Your task to perform on an android device: Go to eBay Image 0: 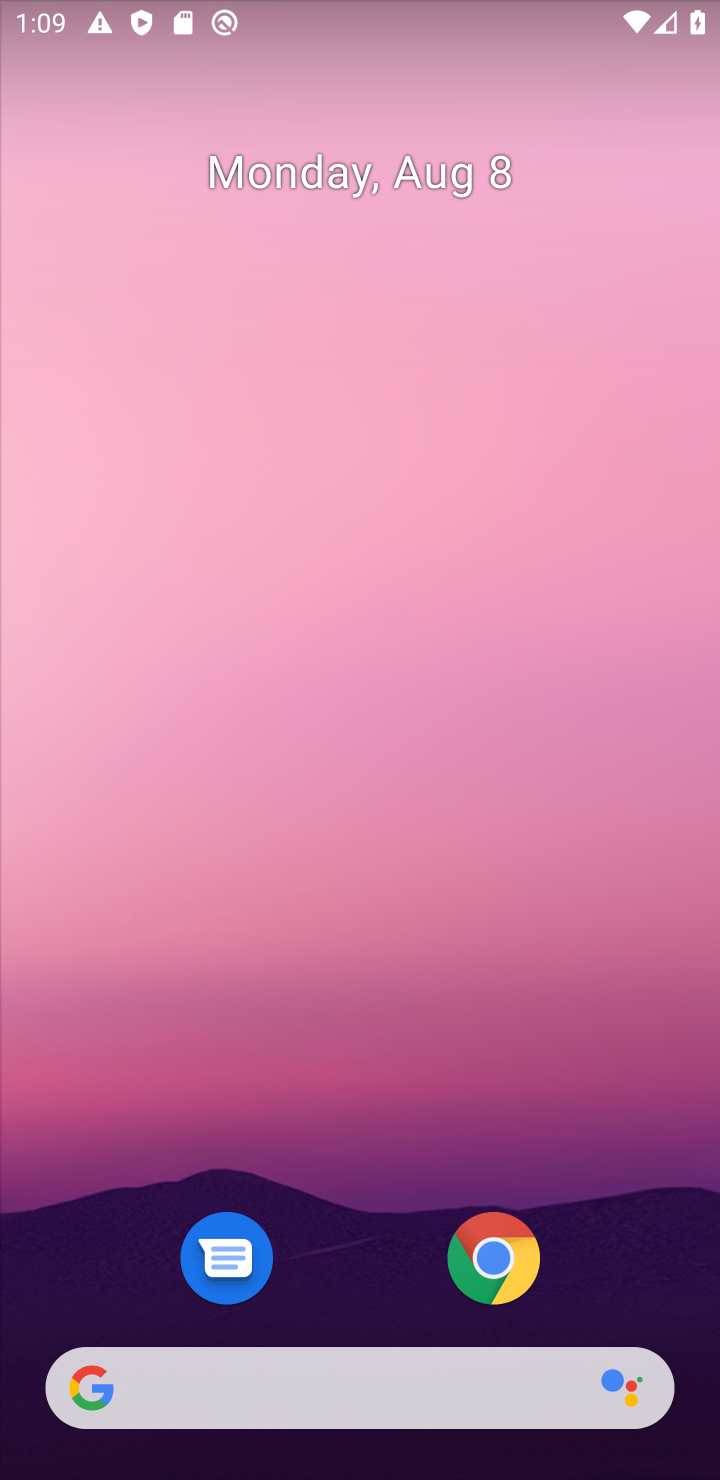
Step 0: drag from (407, 1149) to (404, 432)
Your task to perform on an android device: Go to eBay Image 1: 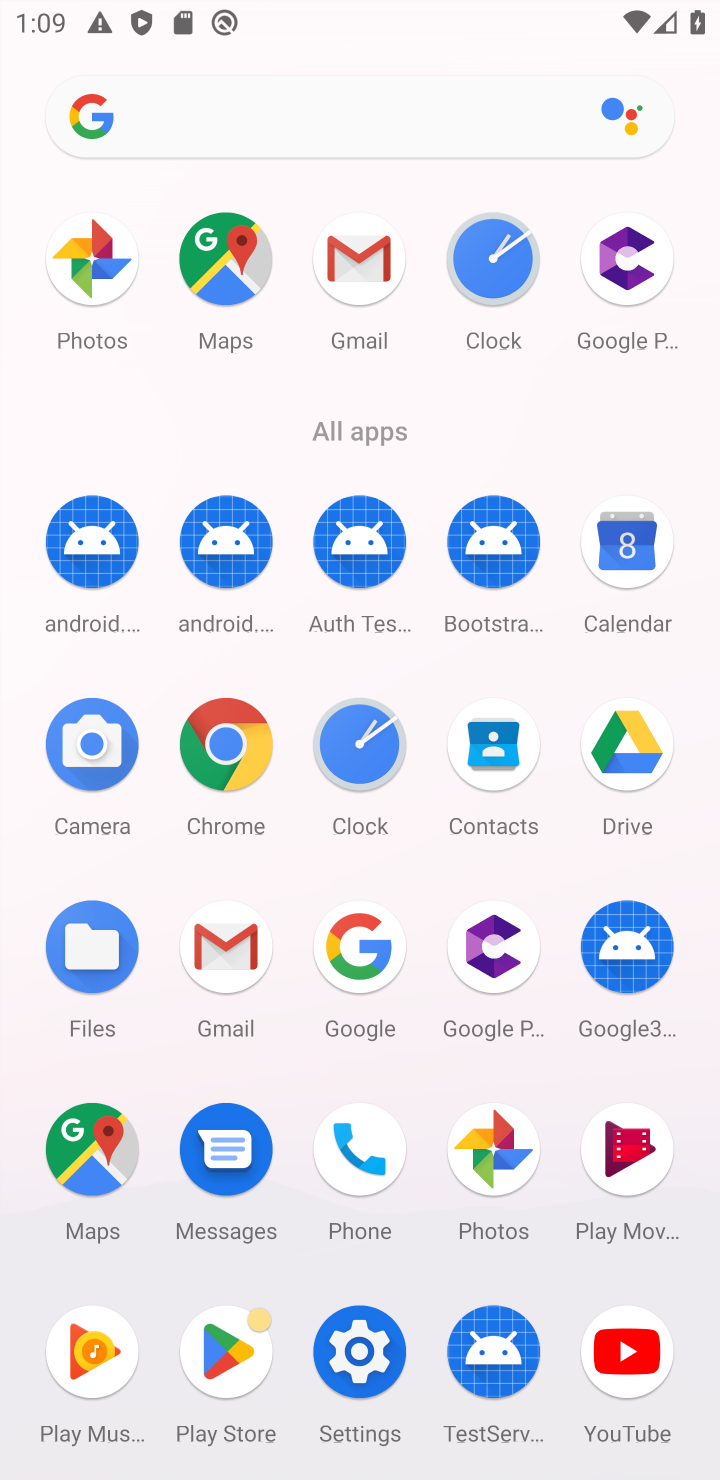
Step 1: click (232, 762)
Your task to perform on an android device: Go to eBay Image 2: 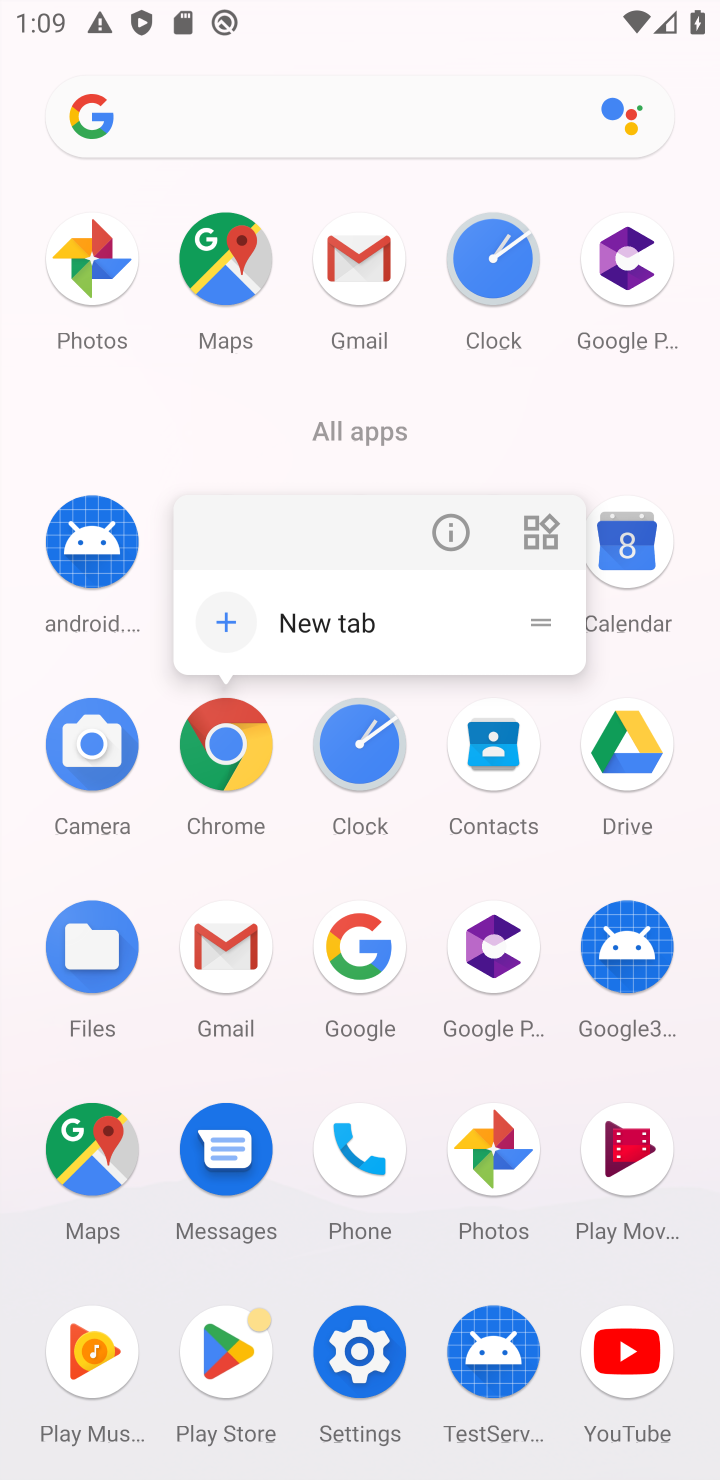
Step 2: click (232, 762)
Your task to perform on an android device: Go to eBay Image 3: 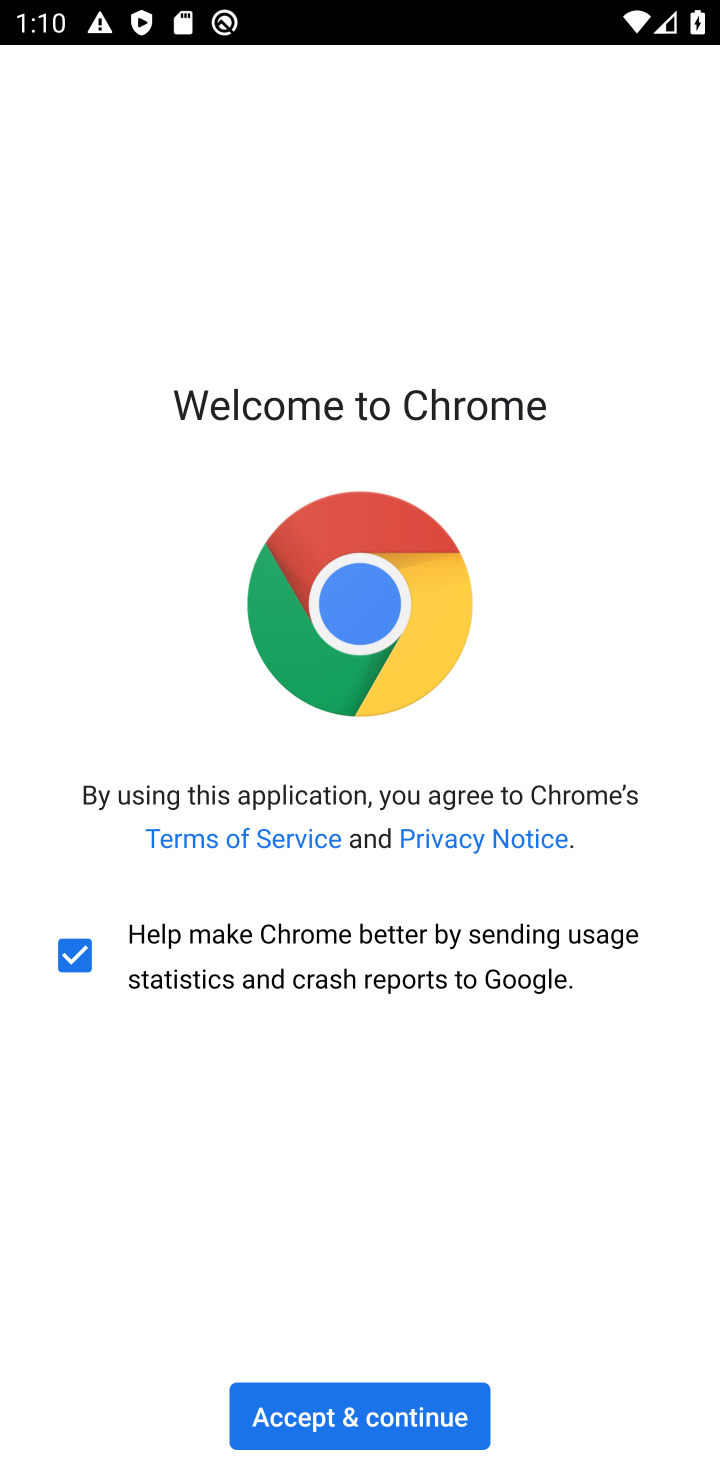
Step 3: click (329, 1431)
Your task to perform on an android device: Go to eBay Image 4: 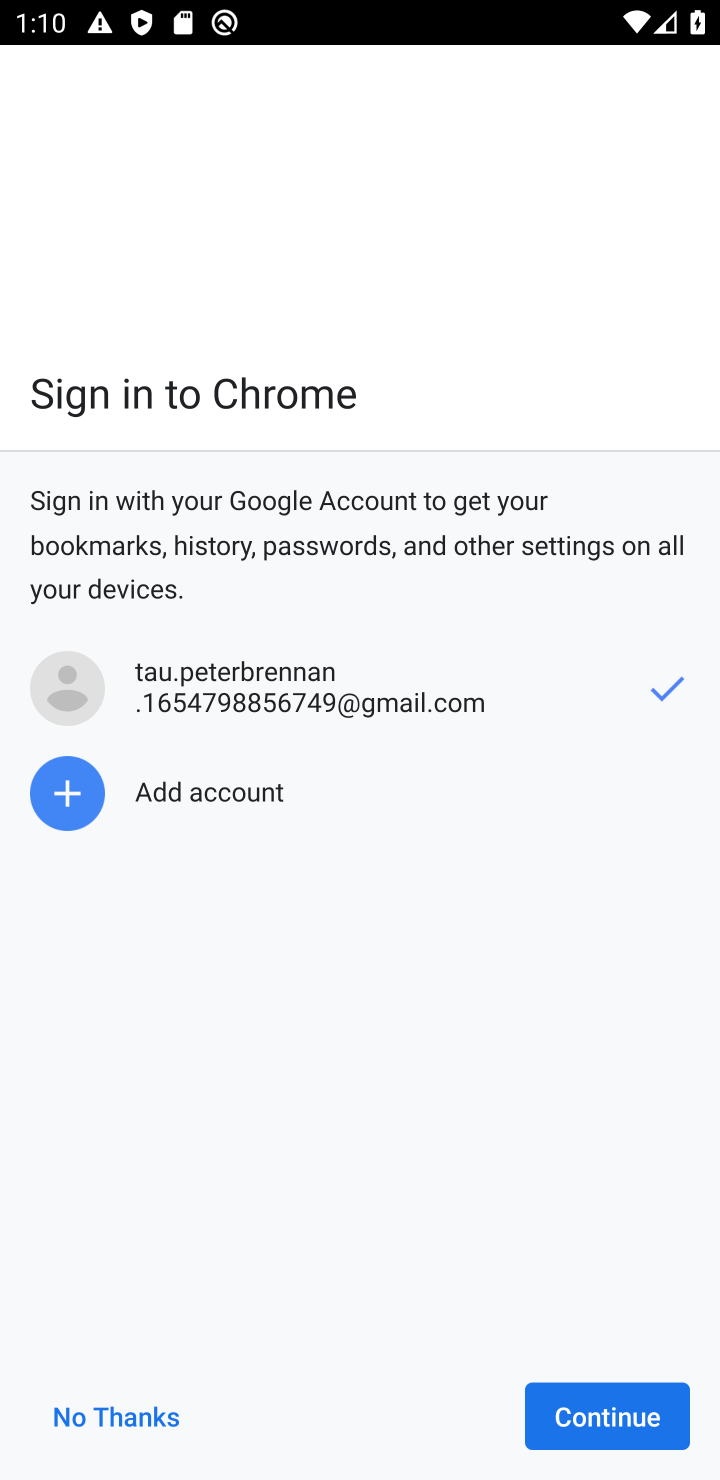
Step 4: click (629, 1422)
Your task to perform on an android device: Go to eBay Image 5: 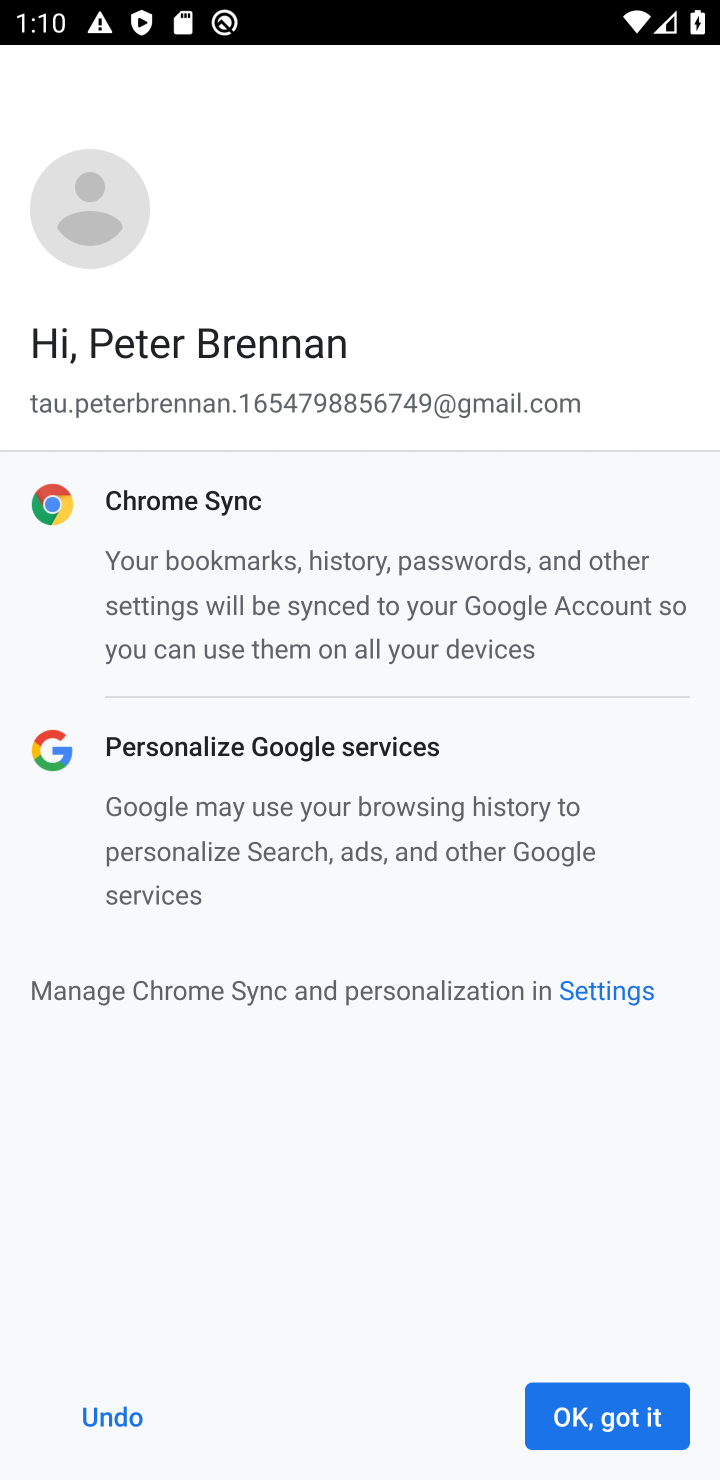
Step 5: click (593, 1394)
Your task to perform on an android device: Go to eBay Image 6: 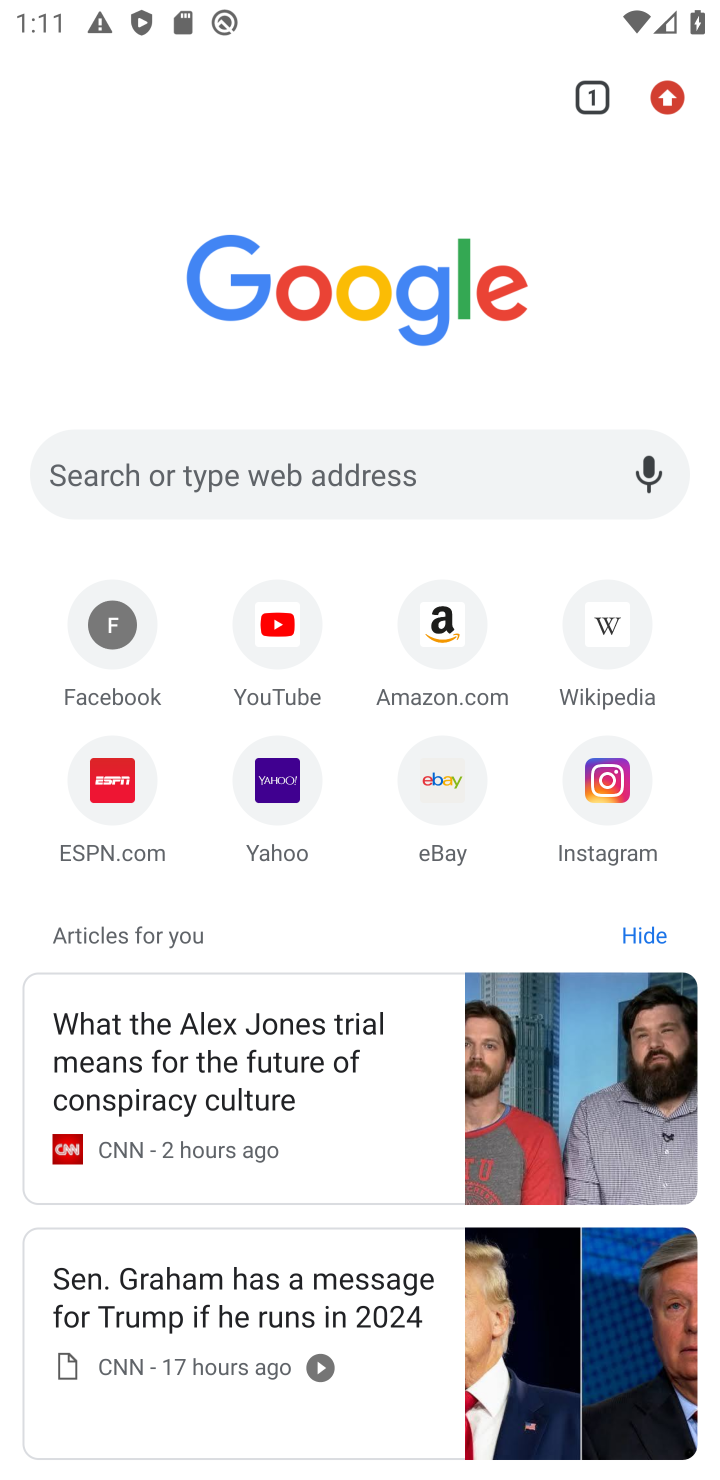
Step 6: click (431, 815)
Your task to perform on an android device: Go to eBay Image 7: 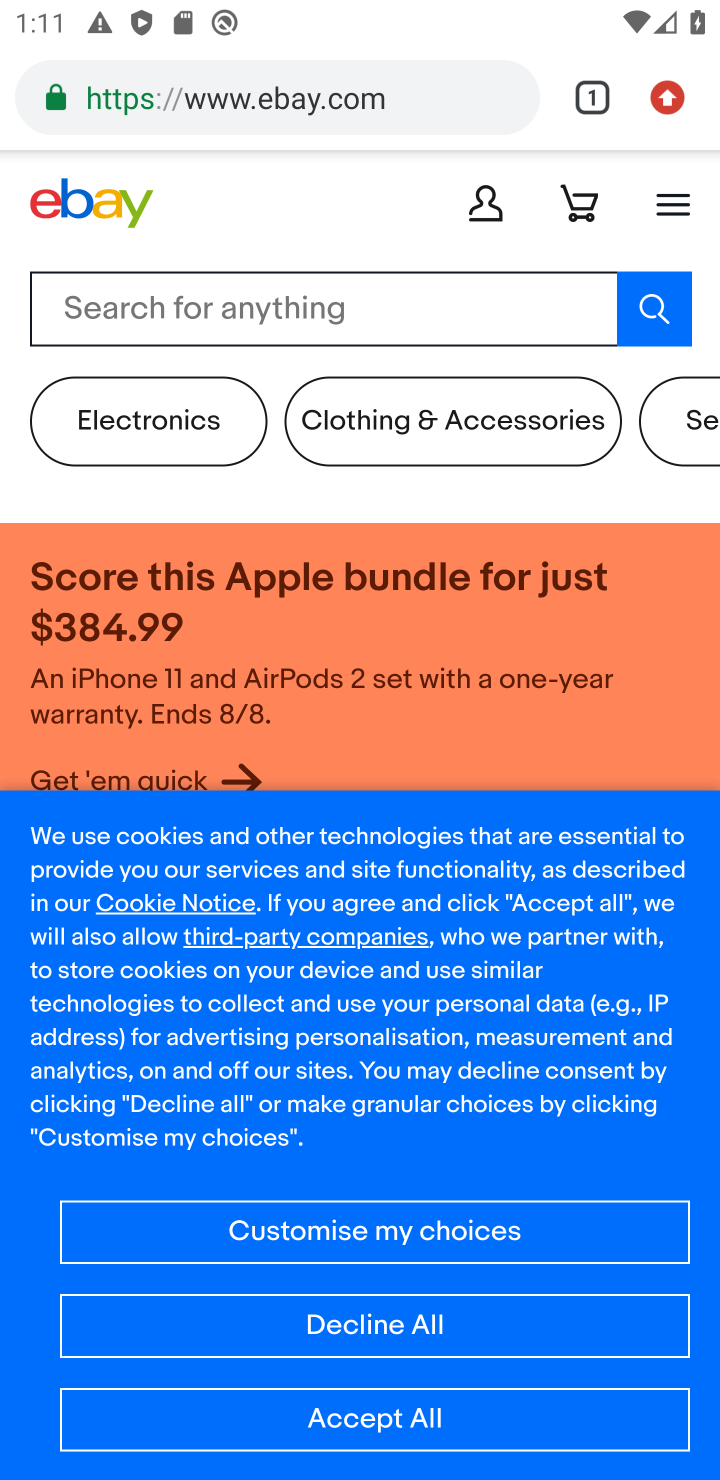
Step 7: task complete